Your task to perform on an android device: change keyboard looks Image 0: 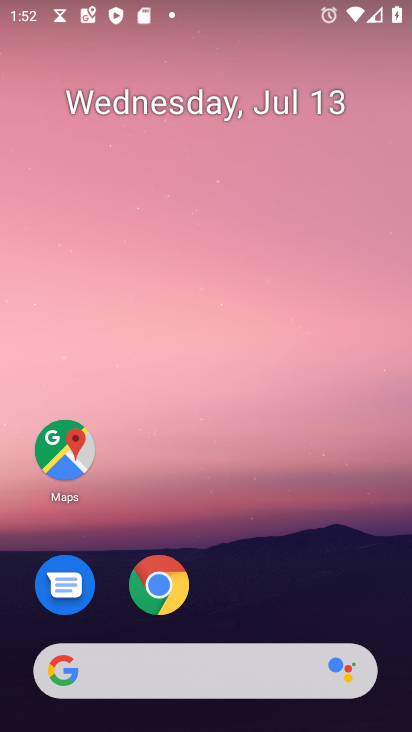
Step 0: drag from (215, 652) to (217, 121)
Your task to perform on an android device: change keyboard looks Image 1: 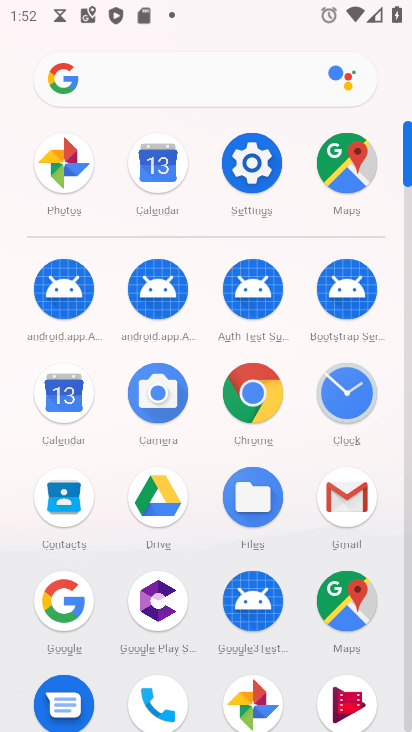
Step 1: click (251, 171)
Your task to perform on an android device: change keyboard looks Image 2: 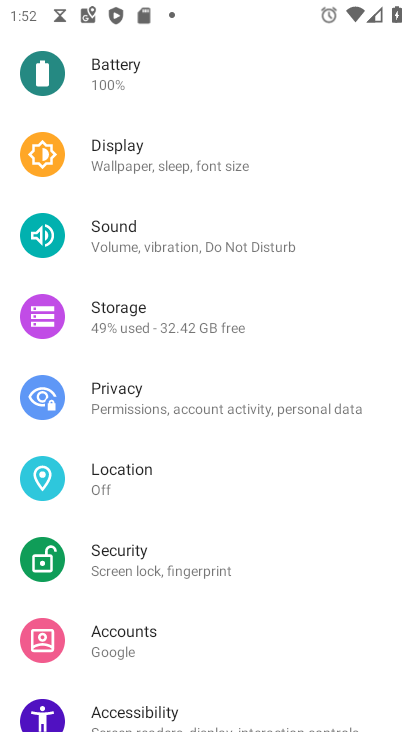
Step 2: drag from (204, 608) to (285, 176)
Your task to perform on an android device: change keyboard looks Image 3: 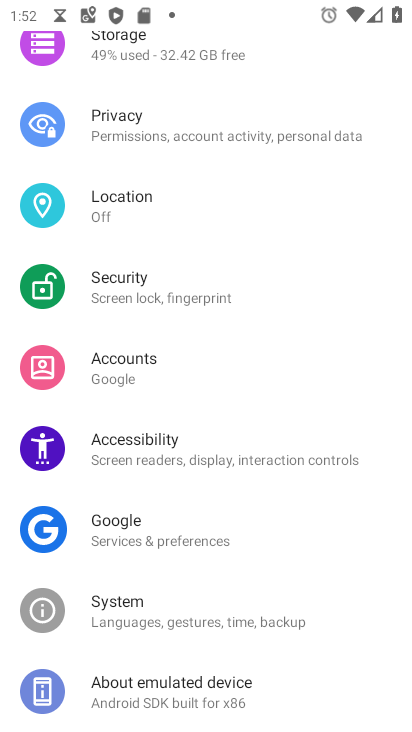
Step 3: drag from (237, 611) to (282, 255)
Your task to perform on an android device: change keyboard looks Image 4: 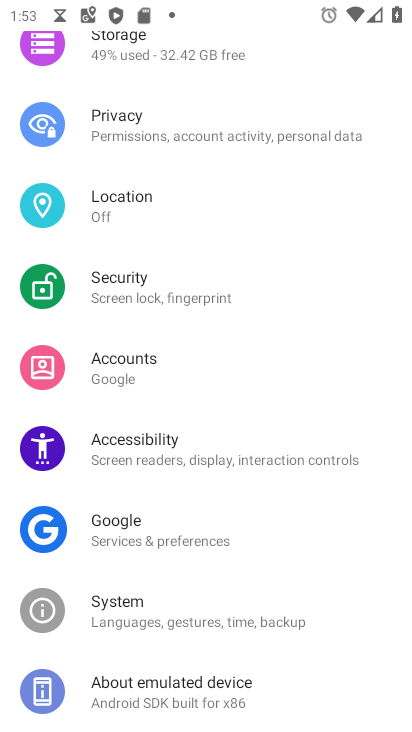
Step 4: click (138, 611)
Your task to perform on an android device: change keyboard looks Image 5: 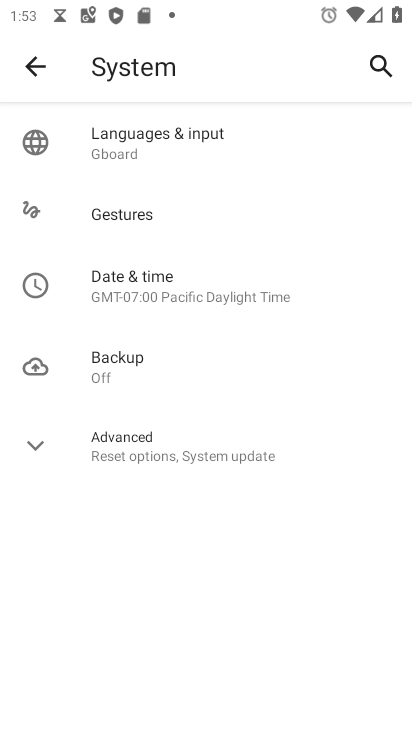
Step 5: click (164, 144)
Your task to perform on an android device: change keyboard looks Image 6: 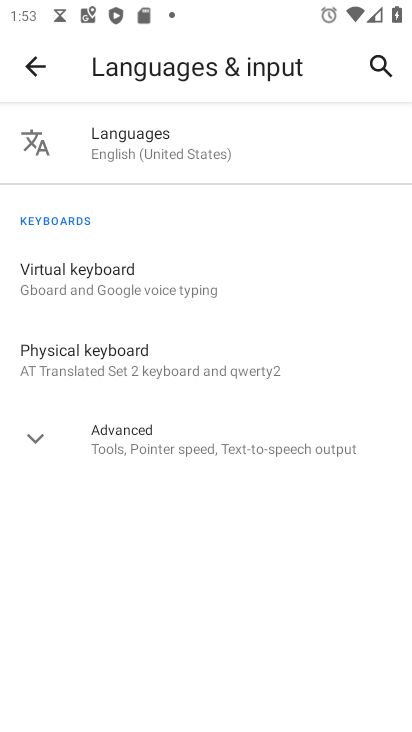
Step 6: click (100, 287)
Your task to perform on an android device: change keyboard looks Image 7: 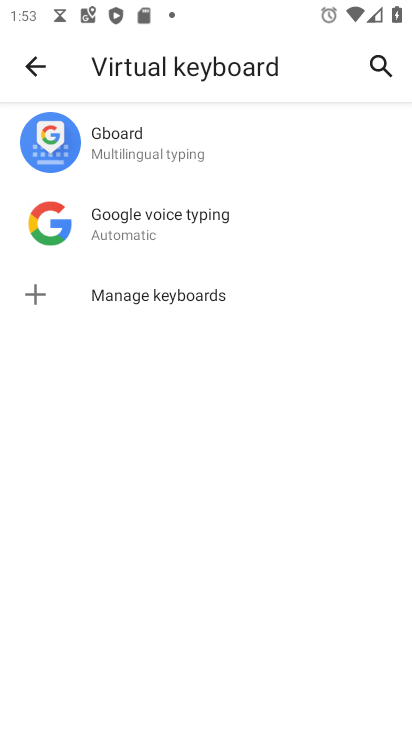
Step 7: click (107, 150)
Your task to perform on an android device: change keyboard looks Image 8: 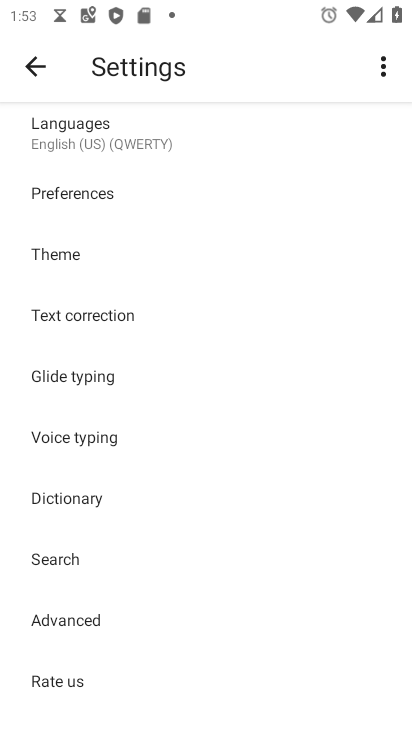
Step 8: click (64, 263)
Your task to perform on an android device: change keyboard looks Image 9: 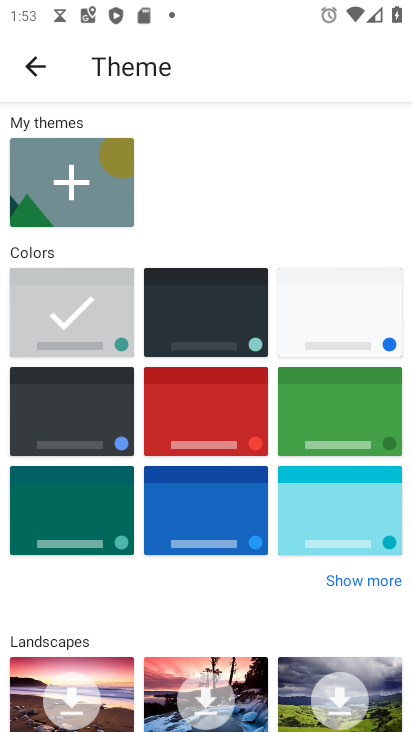
Step 9: click (207, 426)
Your task to perform on an android device: change keyboard looks Image 10: 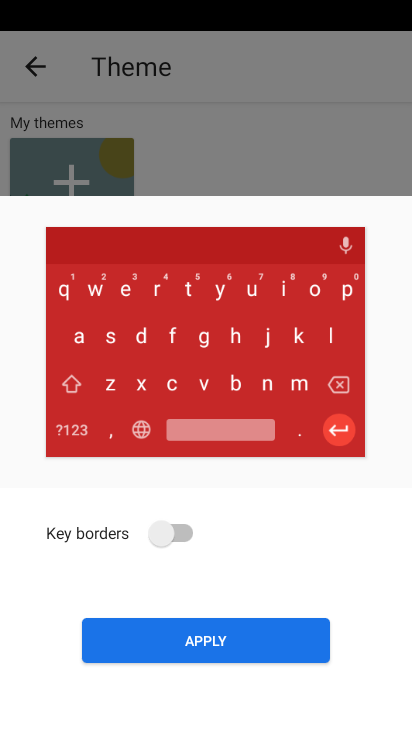
Step 10: click (190, 650)
Your task to perform on an android device: change keyboard looks Image 11: 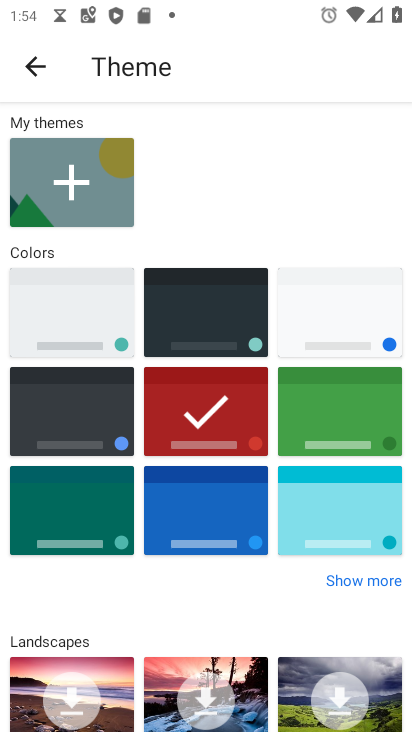
Step 11: task complete